Your task to perform on an android device: turn on location history Image 0: 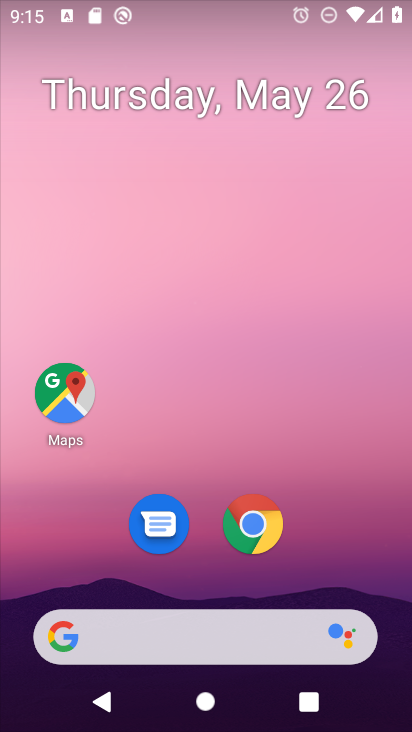
Step 0: drag from (323, 344) to (338, 37)
Your task to perform on an android device: turn on location history Image 1: 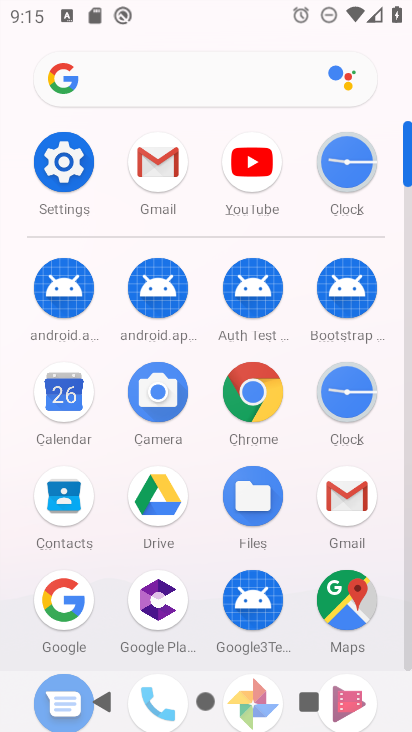
Step 1: click (64, 172)
Your task to perform on an android device: turn on location history Image 2: 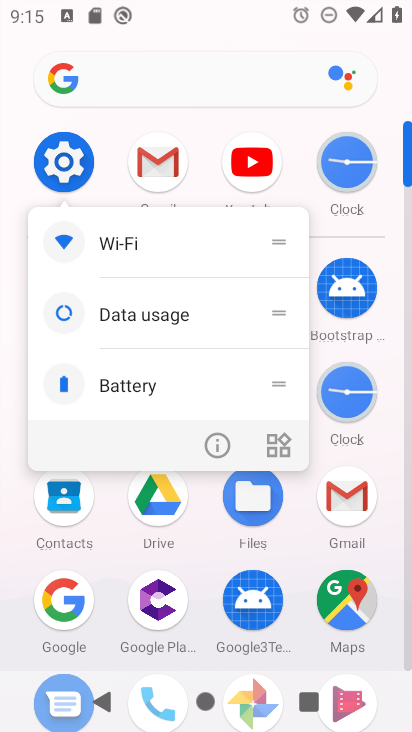
Step 2: click (64, 150)
Your task to perform on an android device: turn on location history Image 3: 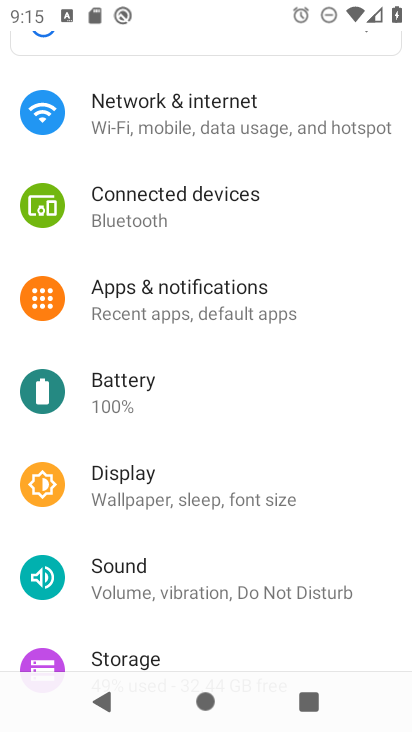
Step 3: drag from (223, 513) to (231, 89)
Your task to perform on an android device: turn on location history Image 4: 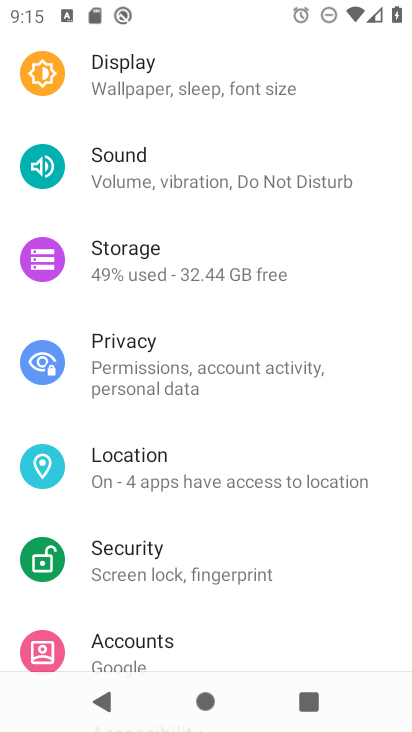
Step 4: click (203, 467)
Your task to perform on an android device: turn on location history Image 5: 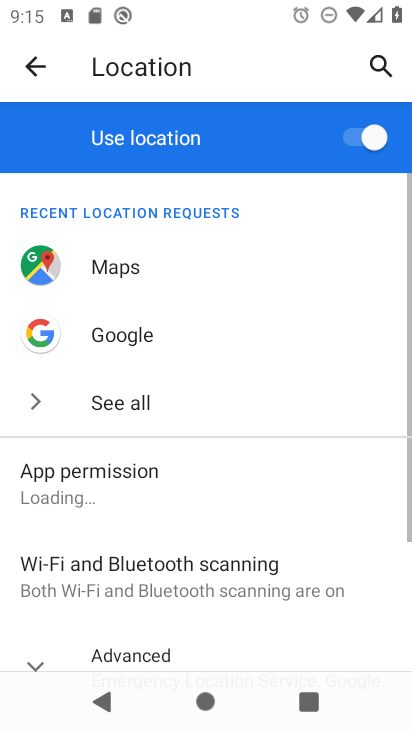
Step 5: drag from (261, 517) to (283, 153)
Your task to perform on an android device: turn on location history Image 6: 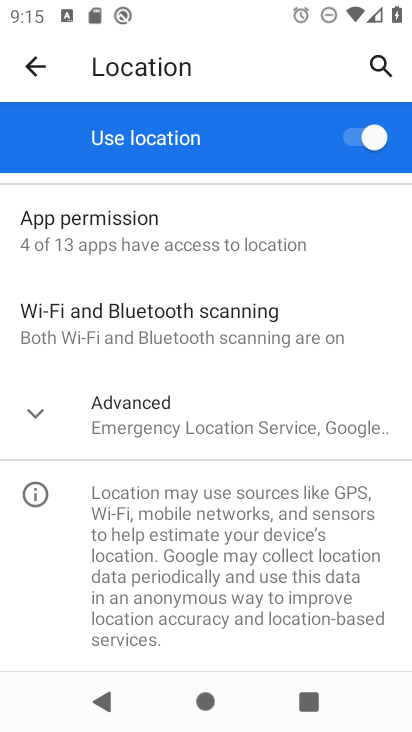
Step 6: click (35, 414)
Your task to perform on an android device: turn on location history Image 7: 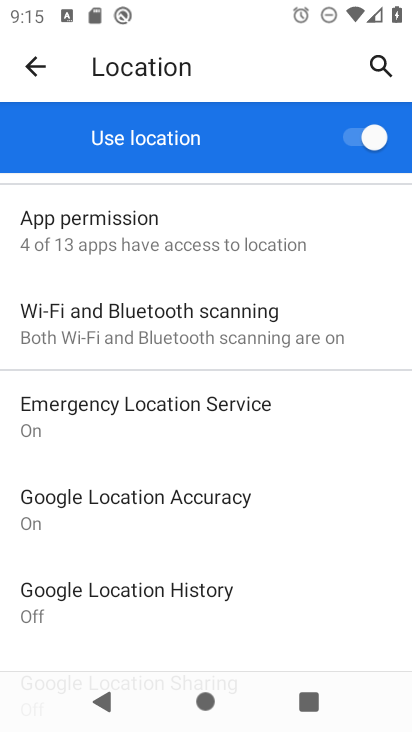
Step 7: click (149, 604)
Your task to perform on an android device: turn on location history Image 8: 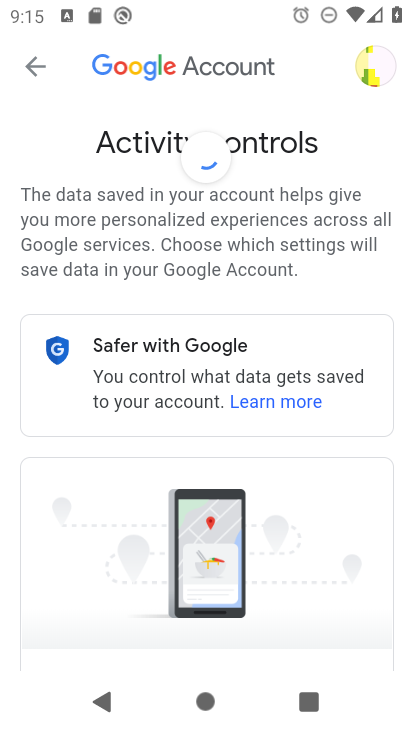
Step 8: task complete